Your task to perform on an android device: open wifi settings Image 0: 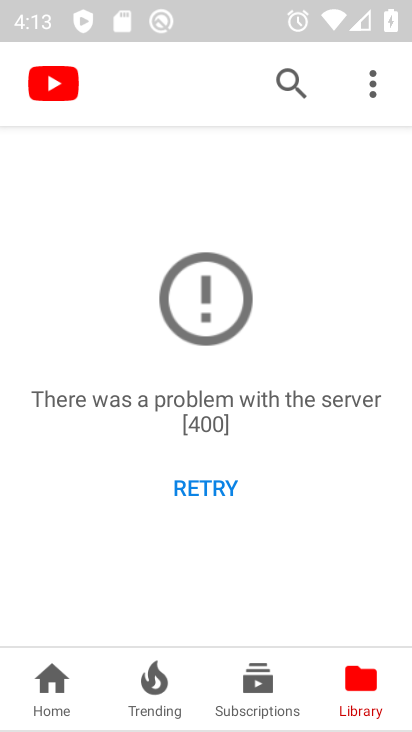
Step 0: press back button
Your task to perform on an android device: open wifi settings Image 1: 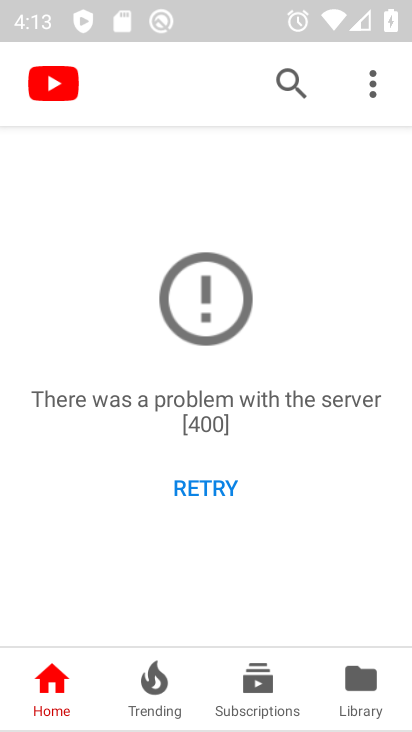
Step 1: press back button
Your task to perform on an android device: open wifi settings Image 2: 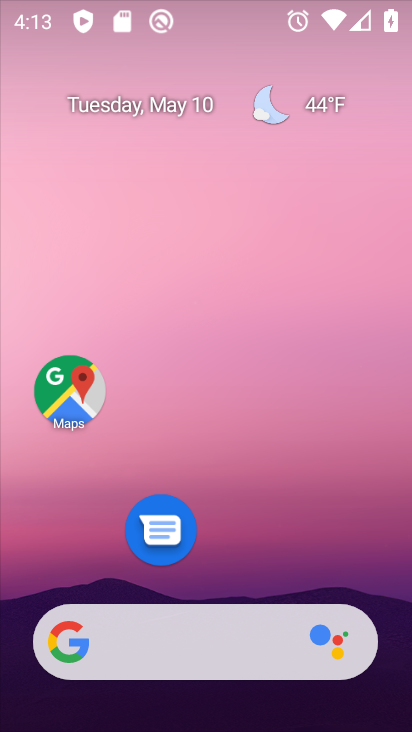
Step 2: drag from (131, 17) to (184, 572)
Your task to perform on an android device: open wifi settings Image 3: 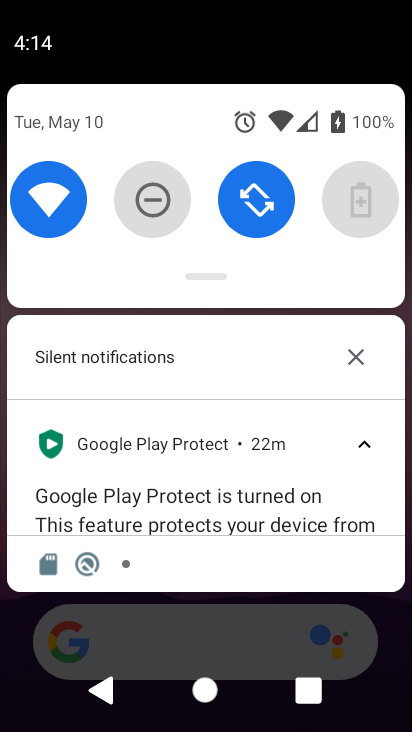
Step 3: click (52, 182)
Your task to perform on an android device: open wifi settings Image 4: 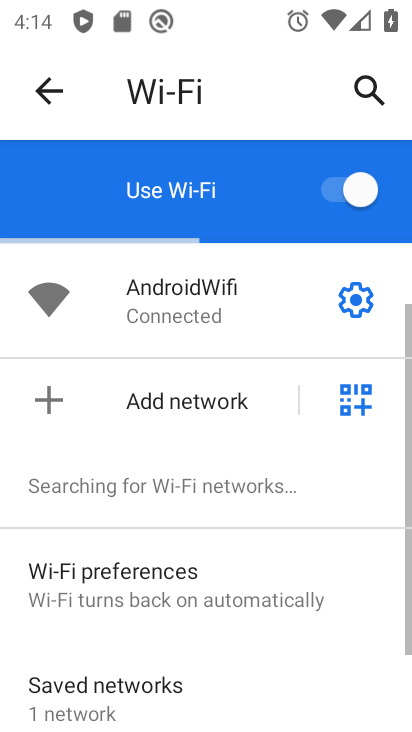
Step 4: task complete